Your task to perform on an android device: check battery use Image 0: 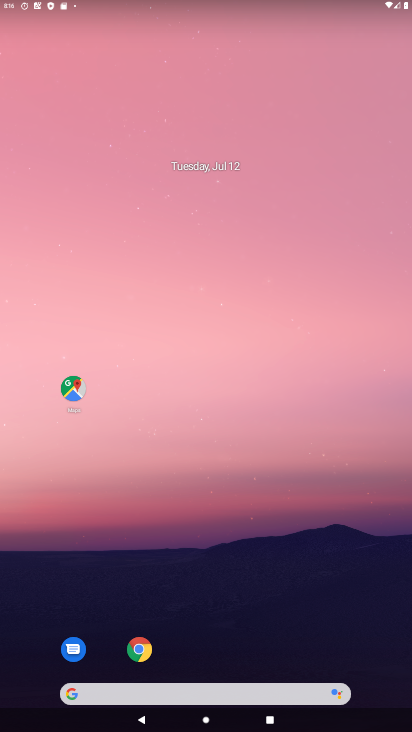
Step 0: drag from (294, 439) to (222, 95)
Your task to perform on an android device: check battery use Image 1: 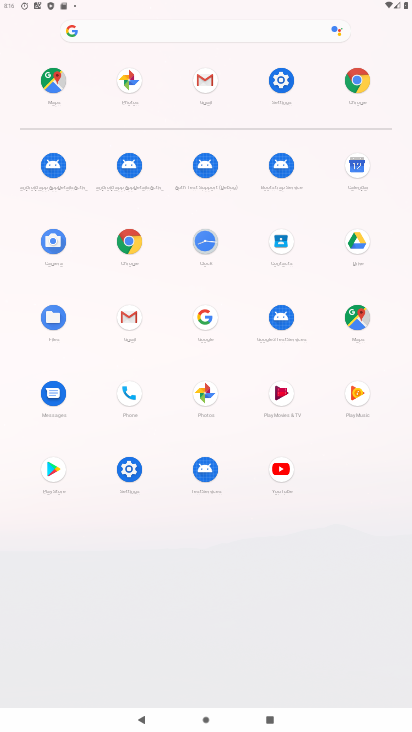
Step 1: click (278, 75)
Your task to perform on an android device: check battery use Image 2: 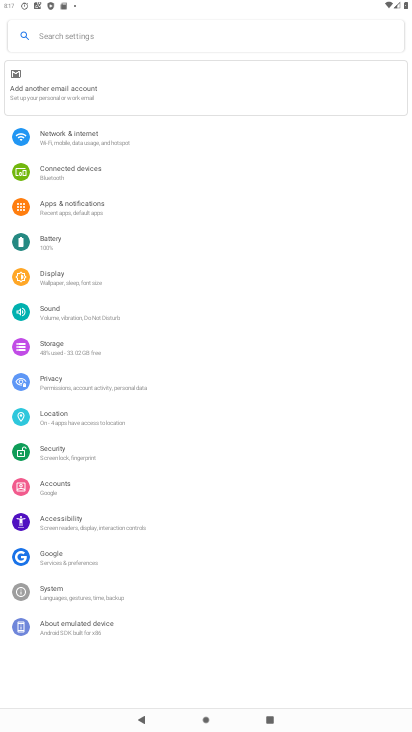
Step 2: click (51, 241)
Your task to perform on an android device: check battery use Image 3: 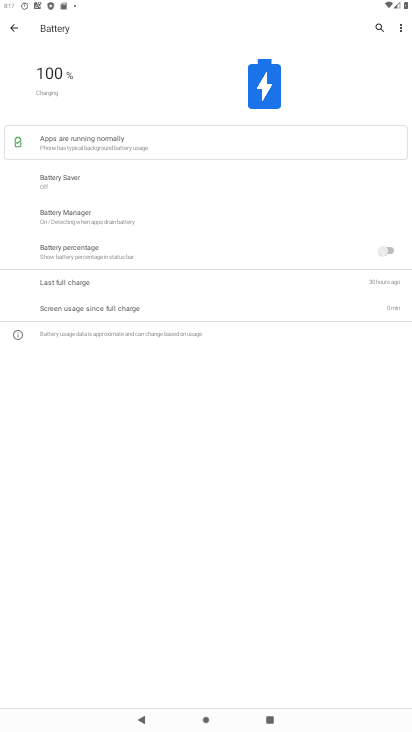
Step 3: click (403, 23)
Your task to perform on an android device: check battery use Image 4: 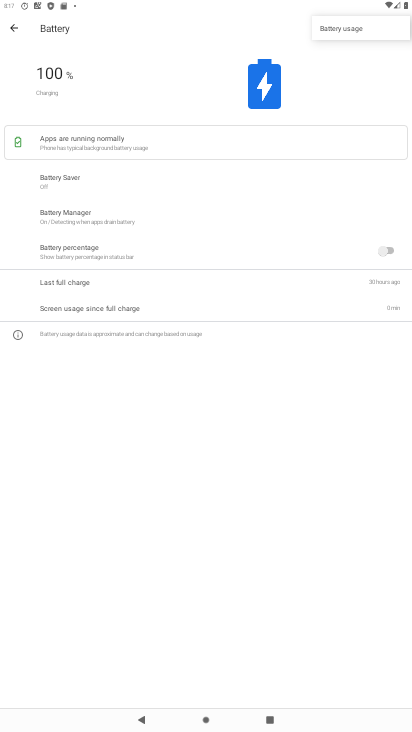
Step 4: click (372, 31)
Your task to perform on an android device: check battery use Image 5: 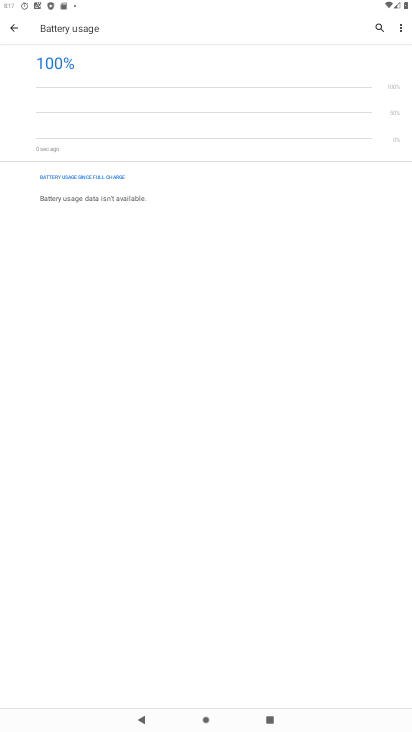
Step 5: task complete